Your task to perform on an android device: Open calendar and show me the first week of next month Image 0: 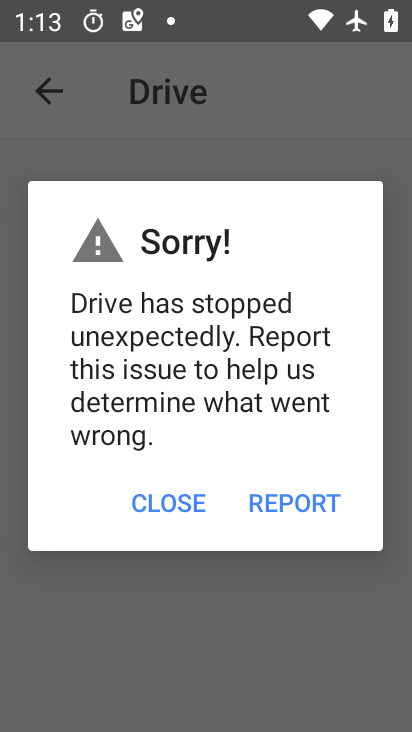
Step 0: press home button
Your task to perform on an android device: Open calendar and show me the first week of next month Image 1: 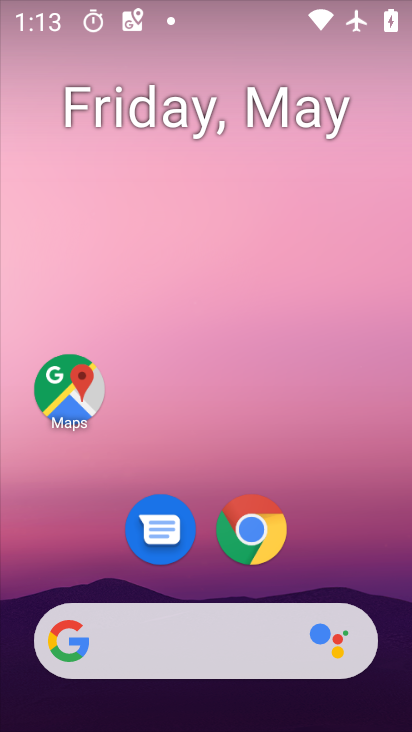
Step 1: drag from (265, 646) to (138, 162)
Your task to perform on an android device: Open calendar and show me the first week of next month Image 2: 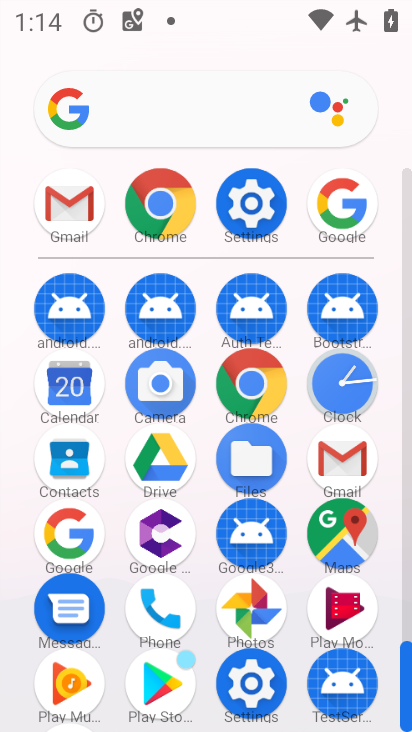
Step 2: click (79, 407)
Your task to perform on an android device: Open calendar and show me the first week of next month Image 3: 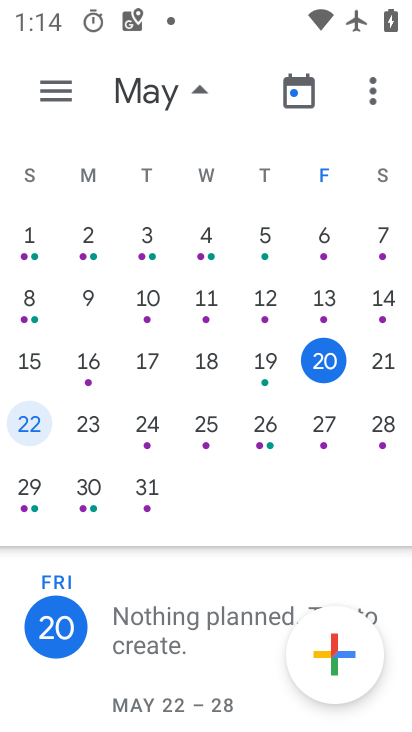
Step 3: drag from (355, 397) to (6, 239)
Your task to perform on an android device: Open calendar and show me the first week of next month Image 4: 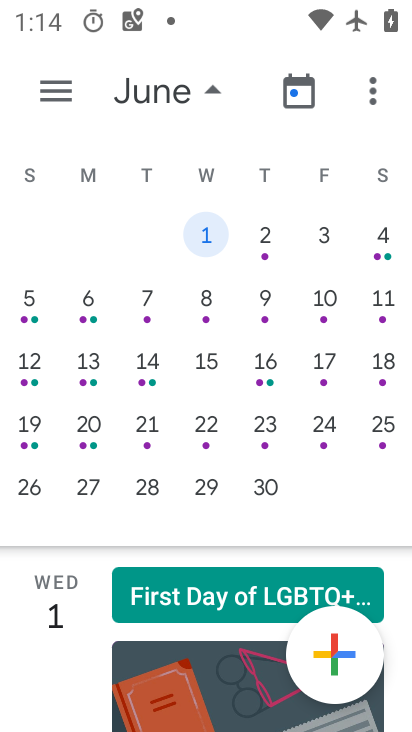
Step 4: click (179, 403)
Your task to perform on an android device: Open calendar and show me the first week of next month Image 5: 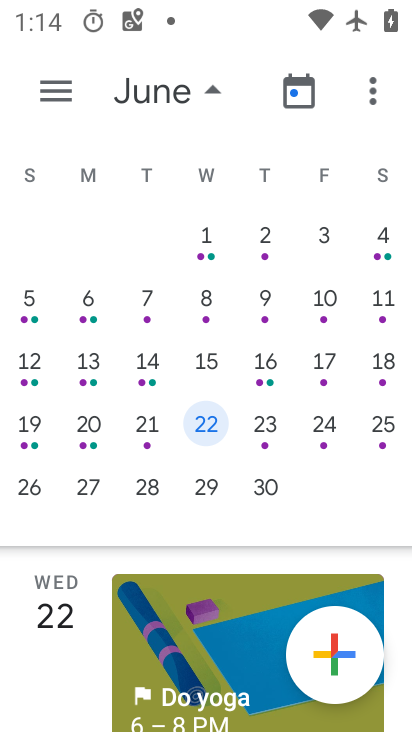
Step 5: click (220, 240)
Your task to perform on an android device: Open calendar and show me the first week of next month Image 6: 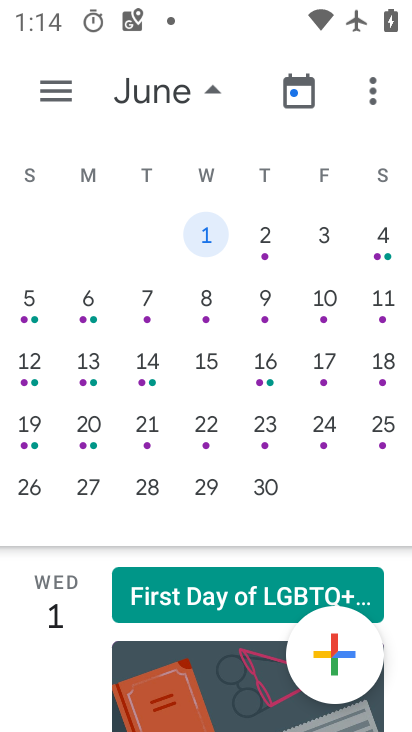
Step 6: task complete